Your task to perform on an android device: Show the shopping cart on newegg.com. Search for razer blackwidow on newegg.com, select the first entry, and add it to the cart. Image 0: 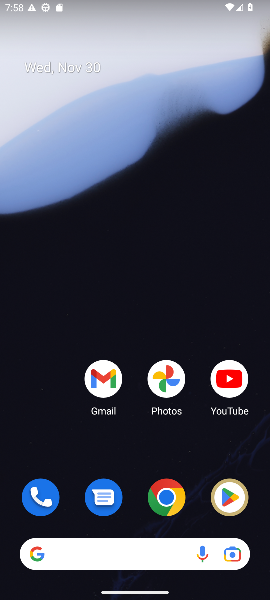
Step 0: click (169, 499)
Your task to perform on an android device: Show the shopping cart on newegg.com. Search for razer blackwidow on newegg.com, select the first entry, and add it to the cart. Image 1: 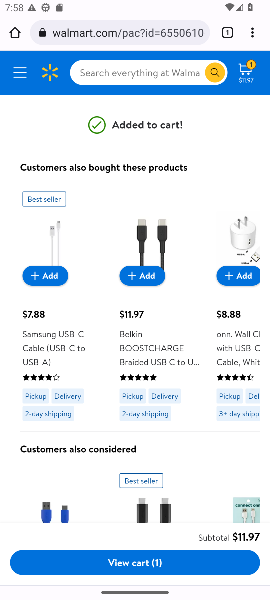
Step 1: click (155, 33)
Your task to perform on an android device: Show the shopping cart on newegg.com. Search for razer blackwidow on newegg.com, select the first entry, and add it to the cart. Image 2: 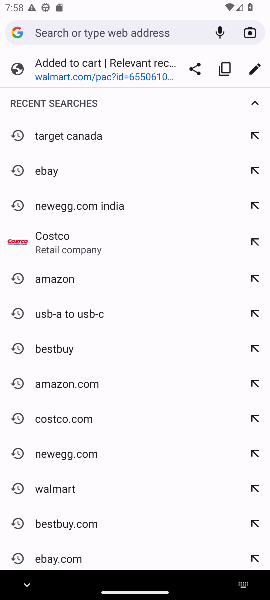
Step 2: type "newegg.com"
Your task to perform on an android device: Show the shopping cart on newegg.com. Search for razer blackwidow on newegg.com, select the first entry, and add it to the cart. Image 3: 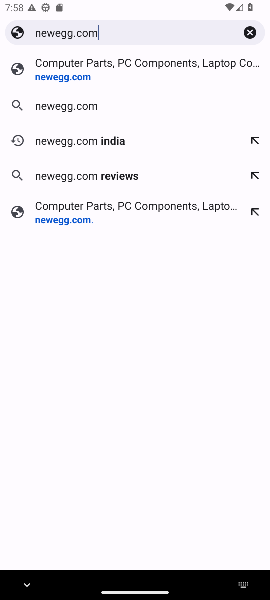
Step 3: click (71, 72)
Your task to perform on an android device: Show the shopping cart on newegg.com. Search for razer blackwidow on newegg.com, select the first entry, and add it to the cart. Image 4: 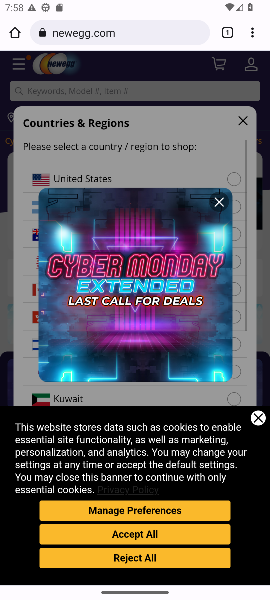
Step 4: click (217, 204)
Your task to perform on an android device: Show the shopping cart on newegg.com. Search for razer blackwidow on newegg.com, select the first entry, and add it to the cart. Image 5: 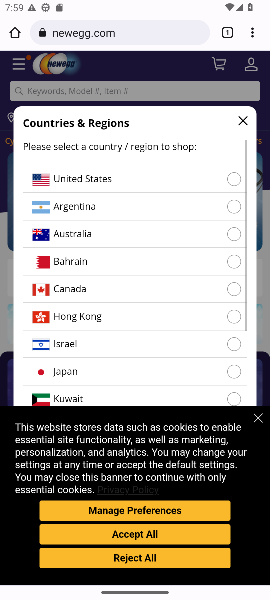
Step 5: click (240, 118)
Your task to perform on an android device: Show the shopping cart on newegg.com. Search for razer blackwidow on newegg.com, select the first entry, and add it to the cart. Image 6: 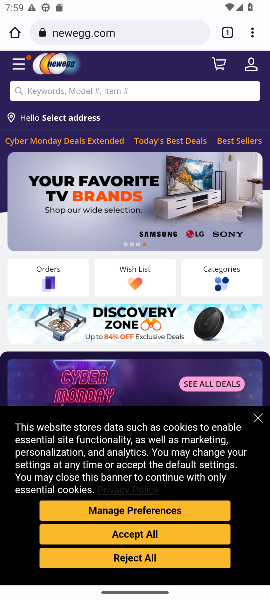
Step 6: click (261, 420)
Your task to perform on an android device: Show the shopping cart on newegg.com. Search for razer blackwidow on newegg.com, select the first entry, and add it to the cart. Image 7: 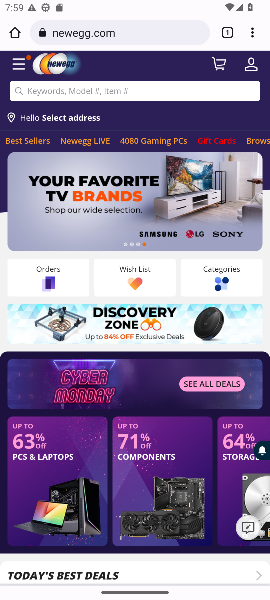
Step 7: click (139, 91)
Your task to perform on an android device: Show the shopping cart on newegg.com. Search for razer blackwidow on newegg.com, select the first entry, and add it to the cart. Image 8: 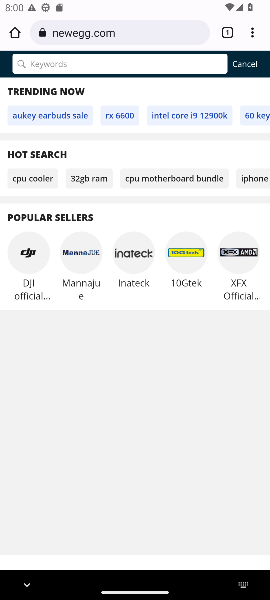
Step 8: type "razer blackwidow"
Your task to perform on an android device: Show the shopping cart on newegg.com. Search for razer blackwidow on newegg.com, select the first entry, and add it to the cart. Image 9: 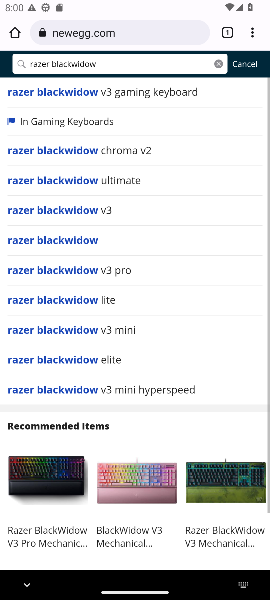
Step 9: click (34, 91)
Your task to perform on an android device: Show the shopping cart on newegg.com. Search for razer blackwidow on newegg.com, select the first entry, and add it to the cart. Image 10: 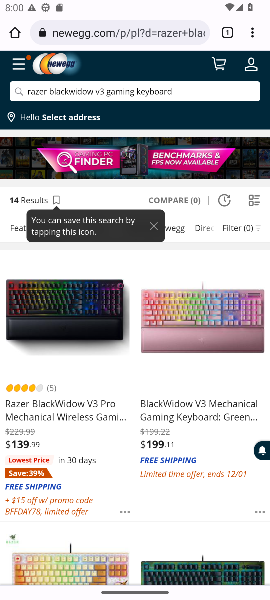
Step 10: click (67, 318)
Your task to perform on an android device: Show the shopping cart on newegg.com. Search for razer blackwidow on newegg.com, select the first entry, and add it to the cart. Image 11: 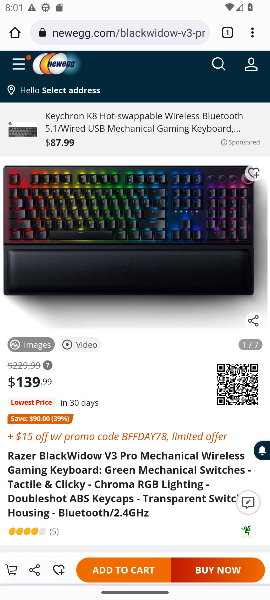
Step 11: click (136, 570)
Your task to perform on an android device: Show the shopping cart on newegg.com. Search for razer blackwidow on newegg.com, select the first entry, and add it to the cart. Image 12: 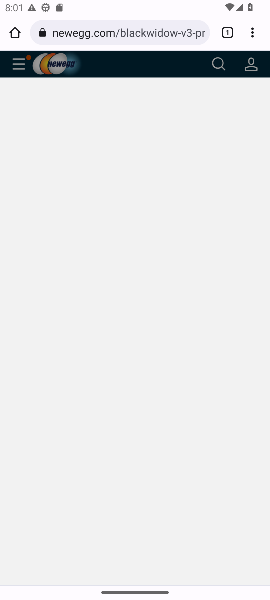
Step 12: task complete